Your task to perform on an android device: Go to Yahoo.com Image 0: 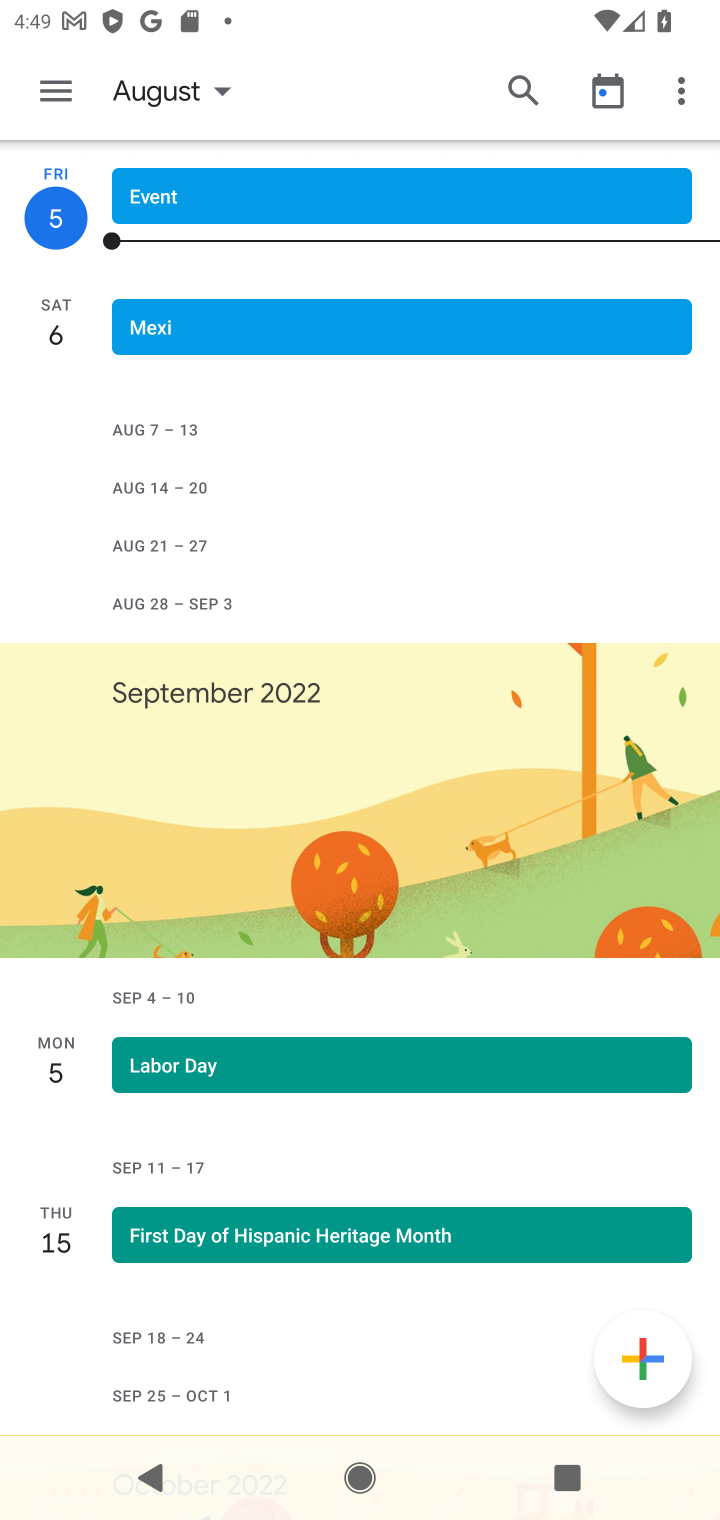
Step 0: press home button
Your task to perform on an android device: Go to Yahoo.com Image 1: 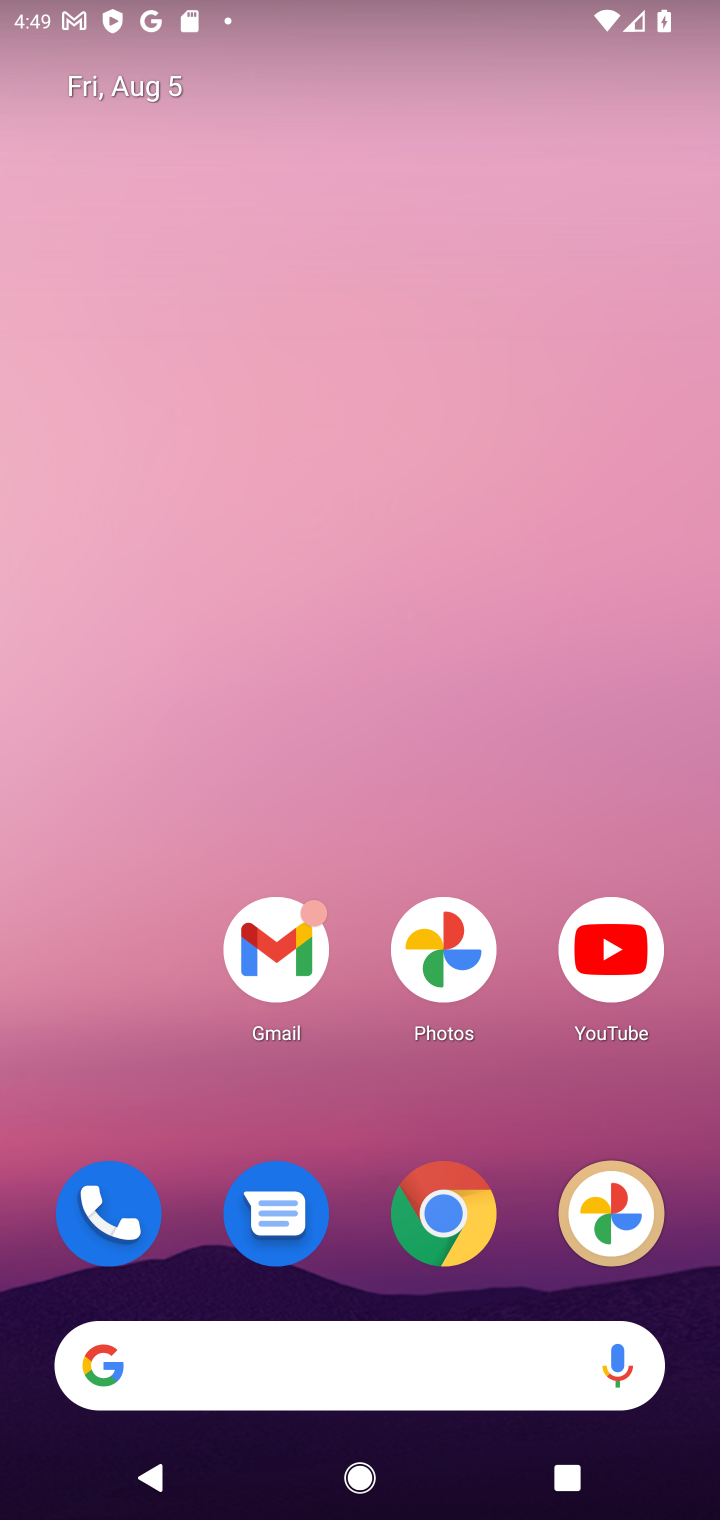
Step 1: click (433, 1231)
Your task to perform on an android device: Go to Yahoo.com Image 2: 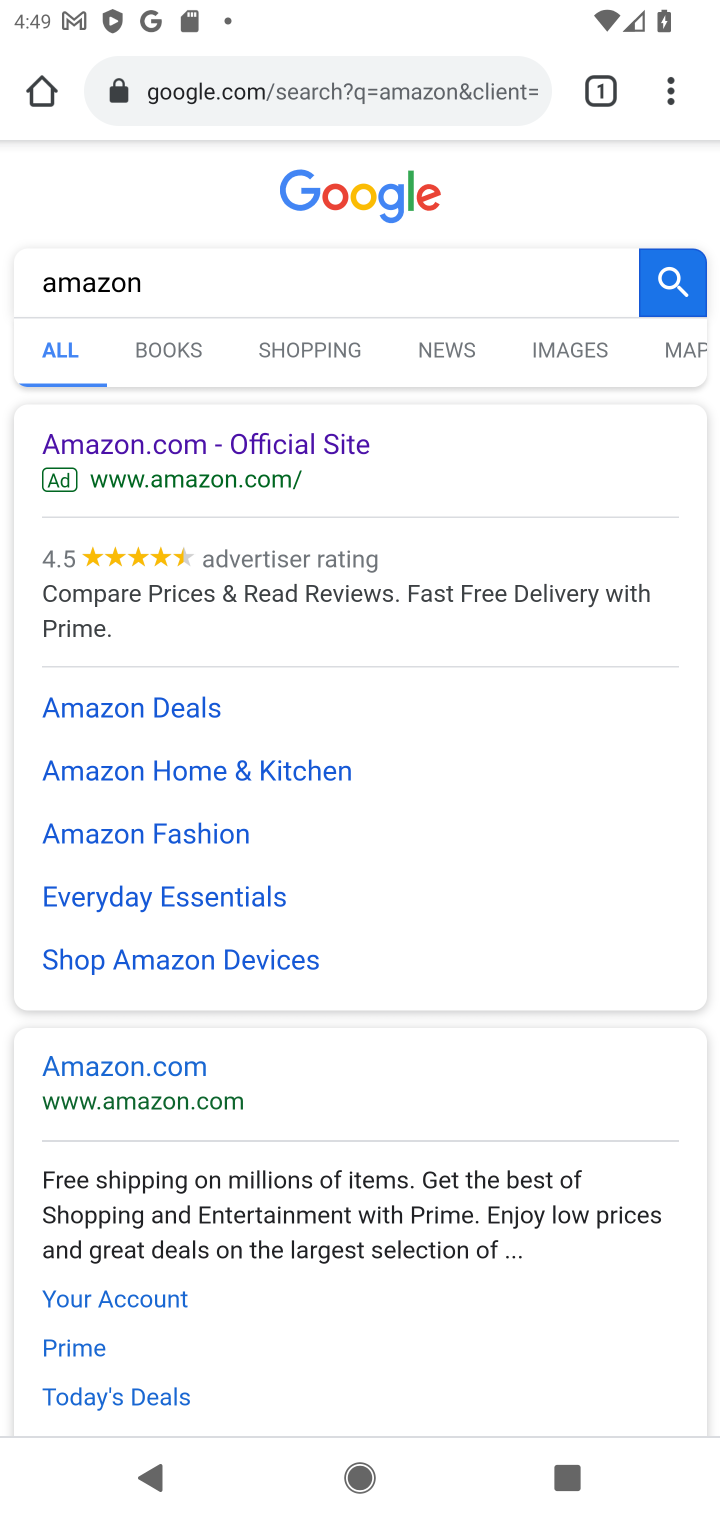
Step 2: click (379, 83)
Your task to perform on an android device: Go to Yahoo.com Image 3: 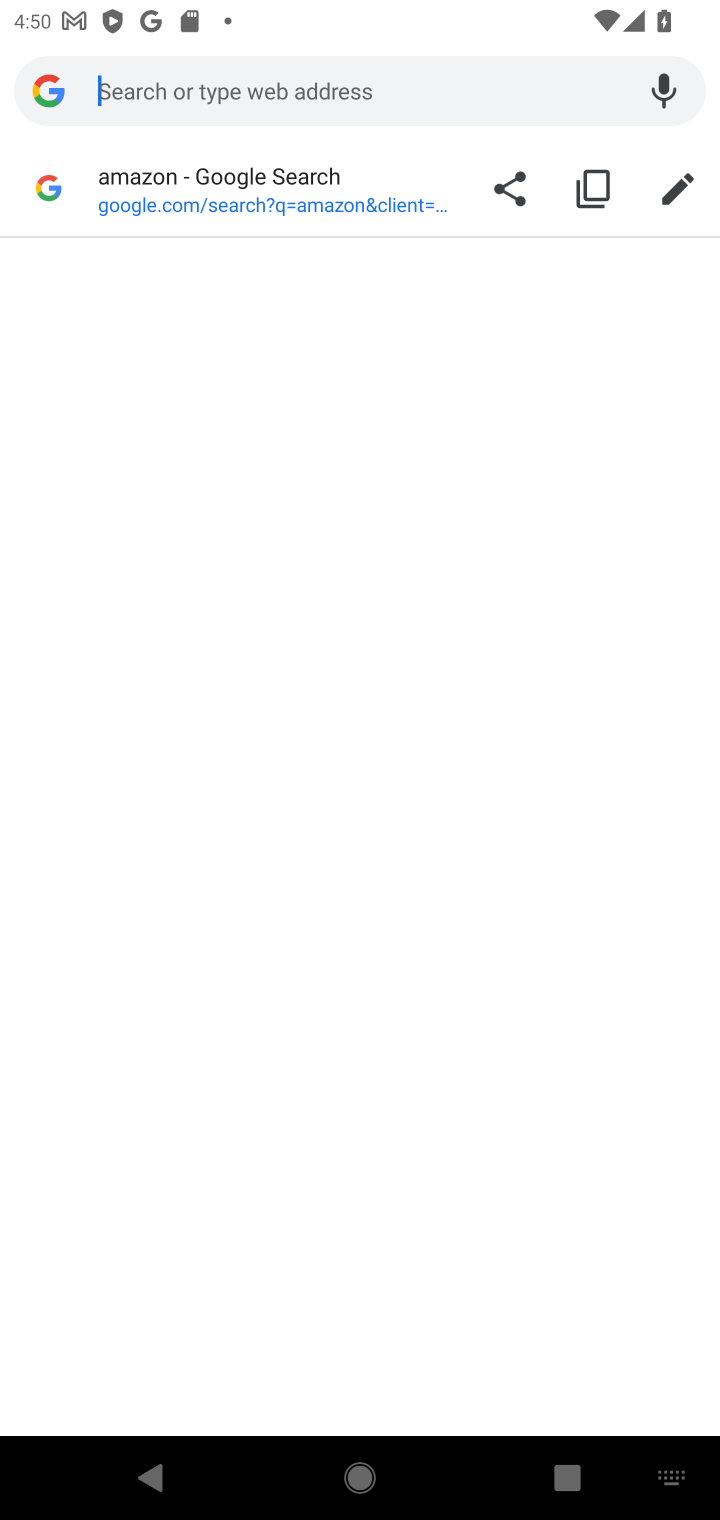
Step 3: type "yahoo"
Your task to perform on an android device: Go to Yahoo.com Image 4: 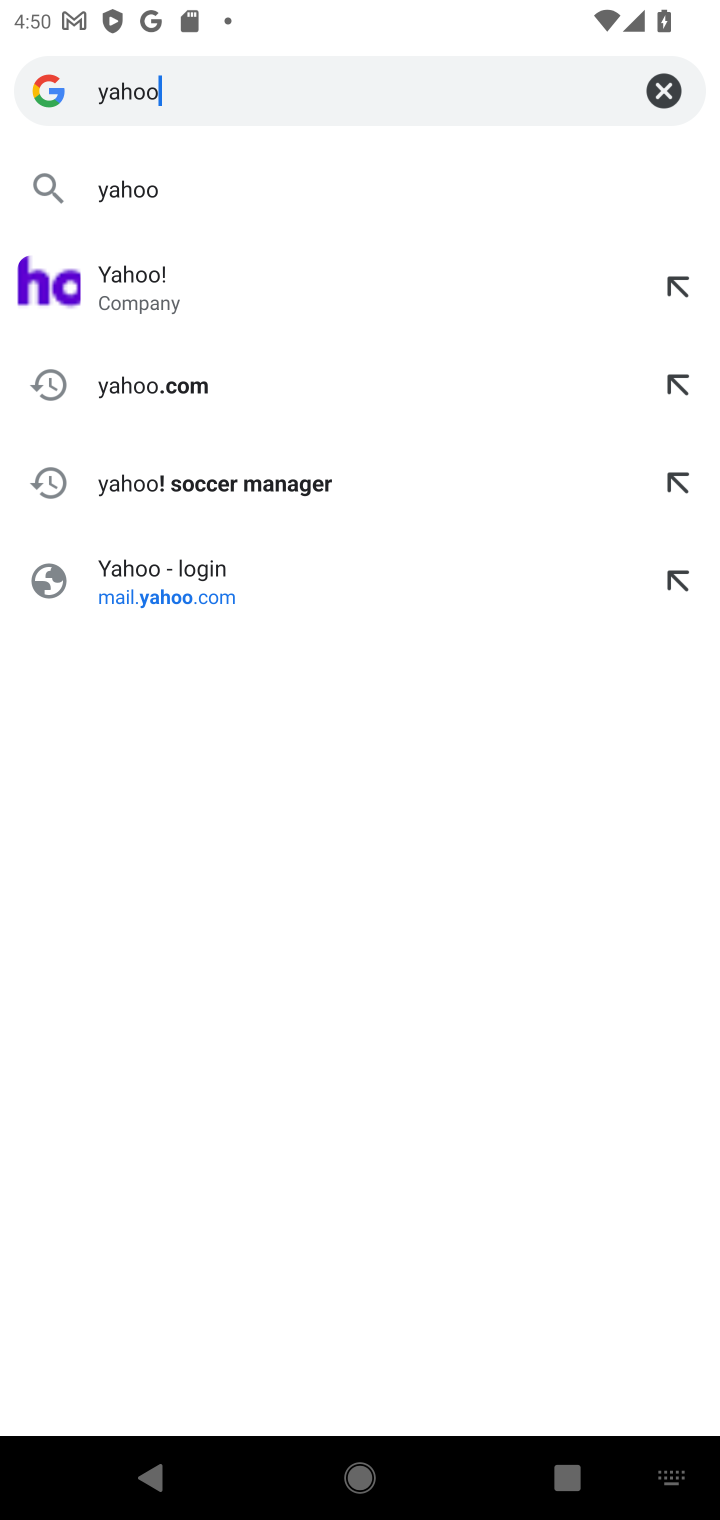
Step 4: click (249, 274)
Your task to perform on an android device: Go to Yahoo.com Image 5: 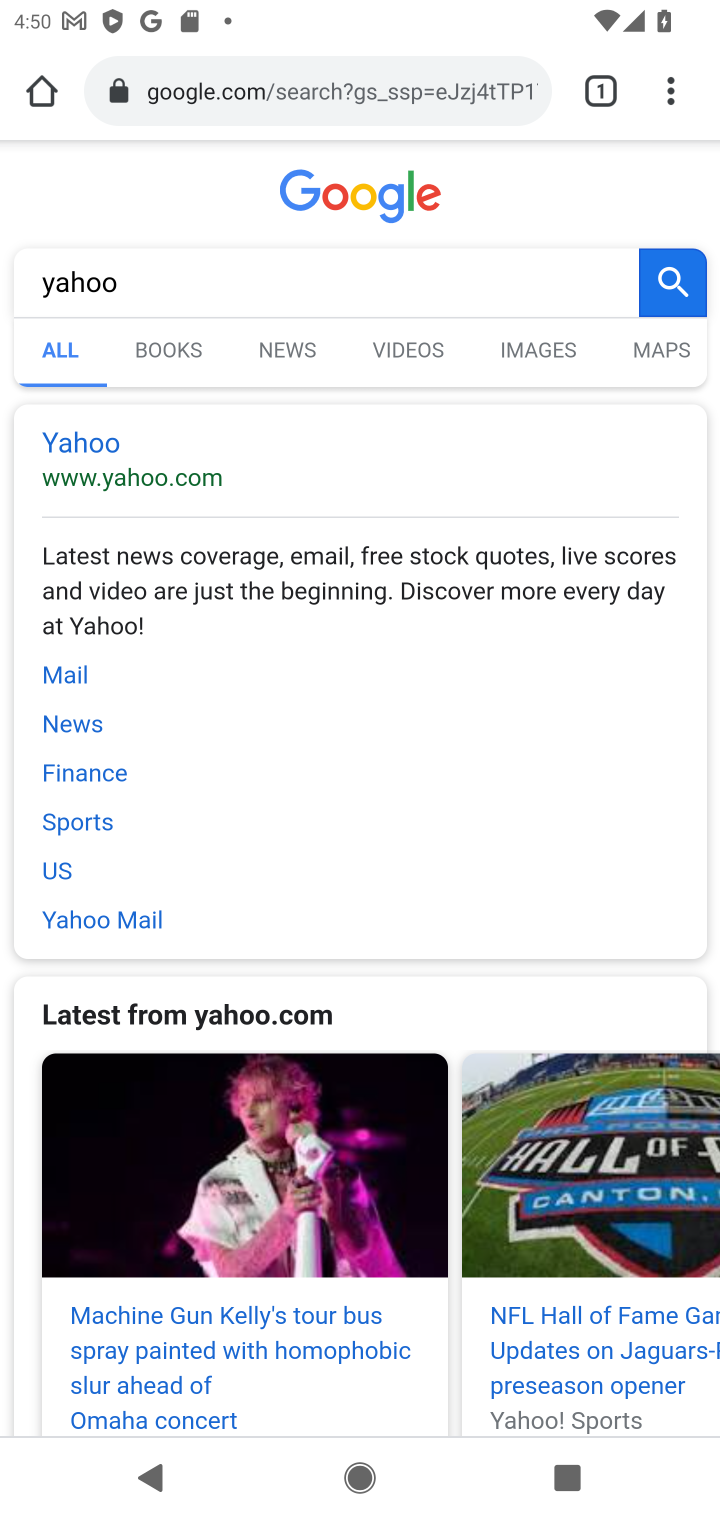
Step 5: click (214, 463)
Your task to perform on an android device: Go to Yahoo.com Image 6: 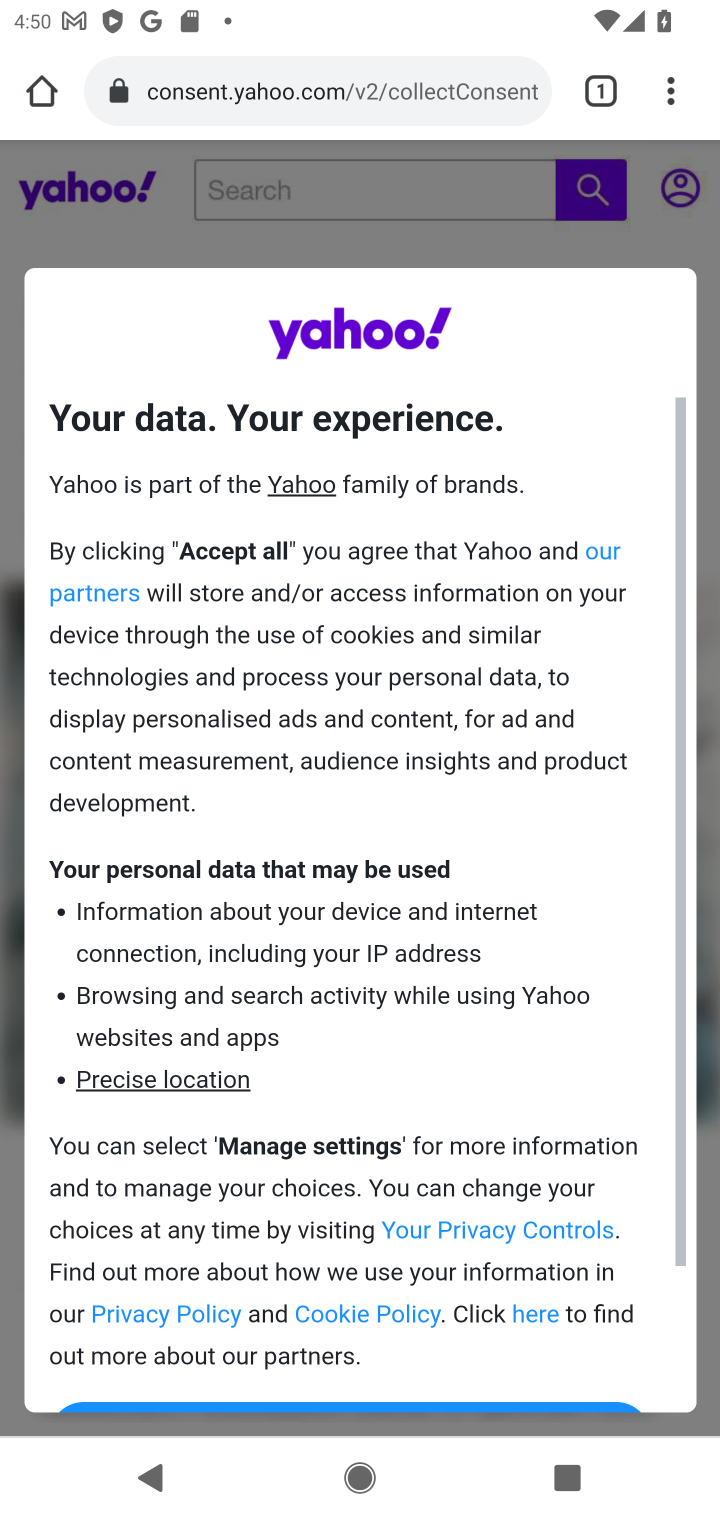
Step 6: task complete